Your task to perform on an android device: Open the calendar app, open the side menu, and click the "Day" option Image 0: 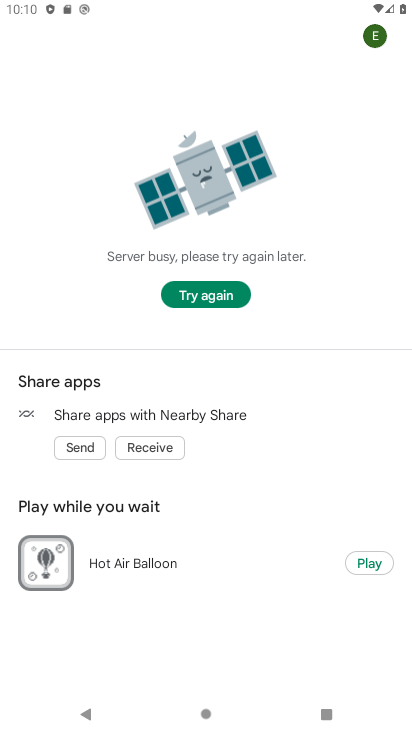
Step 0: press home button
Your task to perform on an android device: Open the calendar app, open the side menu, and click the "Day" option Image 1: 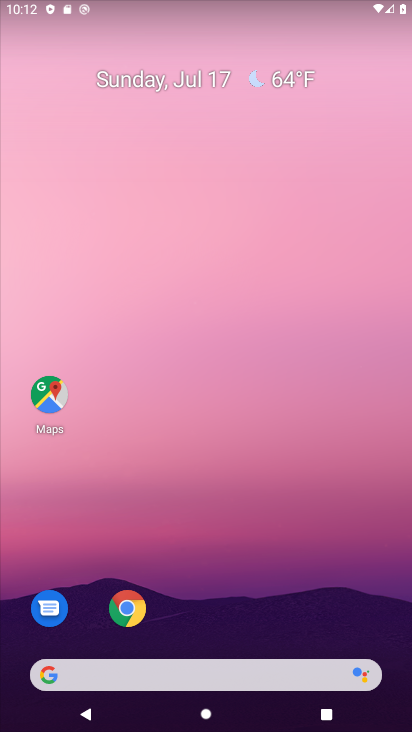
Step 1: drag from (396, 625) to (343, 204)
Your task to perform on an android device: Open the calendar app, open the side menu, and click the "Day" option Image 2: 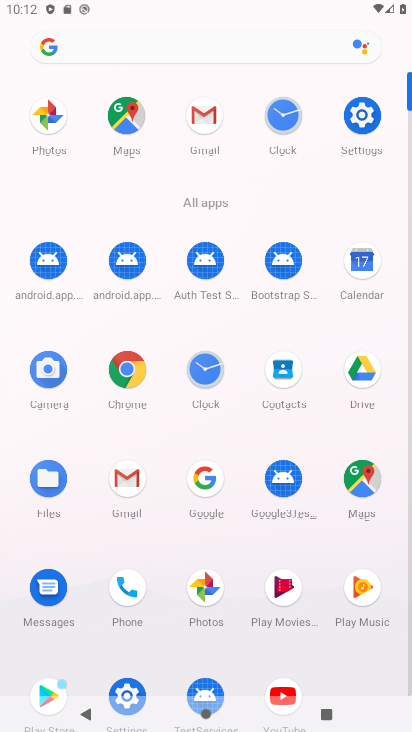
Step 2: click (365, 257)
Your task to perform on an android device: Open the calendar app, open the side menu, and click the "Day" option Image 3: 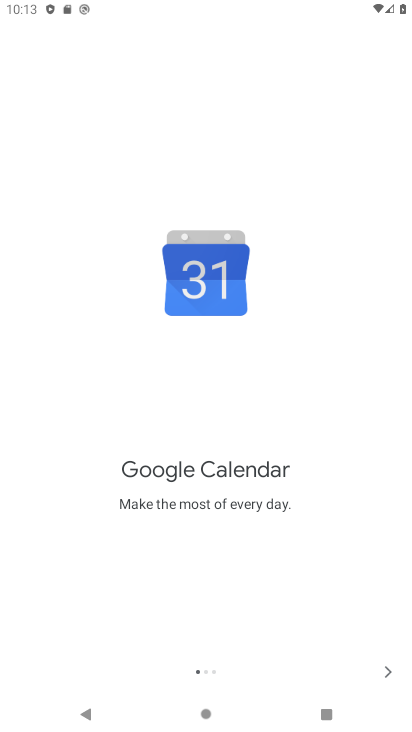
Step 3: click (387, 669)
Your task to perform on an android device: Open the calendar app, open the side menu, and click the "Day" option Image 4: 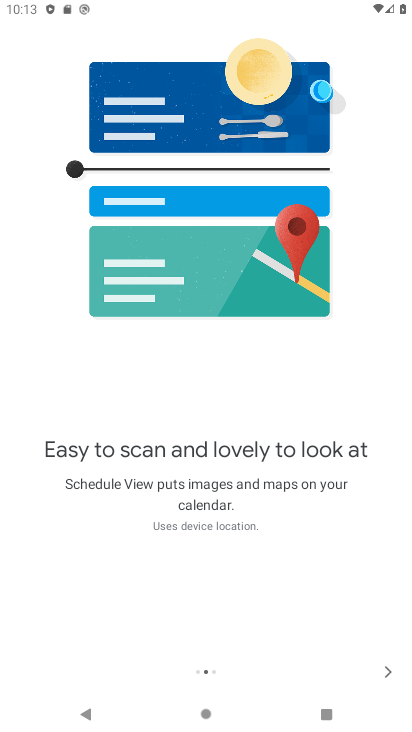
Step 4: click (387, 669)
Your task to perform on an android device: Open the calendar app, open the side menu, and click the "Day" option Image 5: 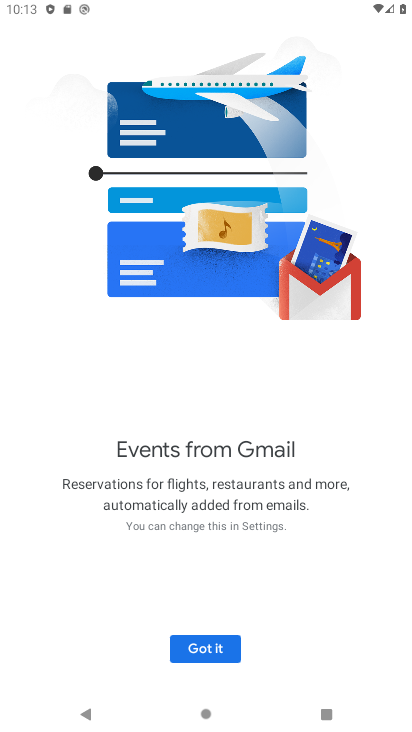
Step 5: click (226, 644)
Your task to perform on an android device: Open the calendar app, open the side menu, and click the "Day" option Image 6: 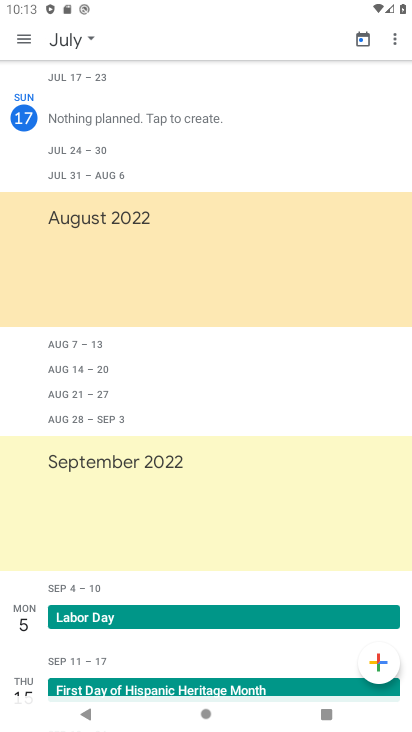
Step 6: click (21, 41)
Your task to perform on an android device: Open the calendar app, open the side menu, and click the "Day" option Image 7: 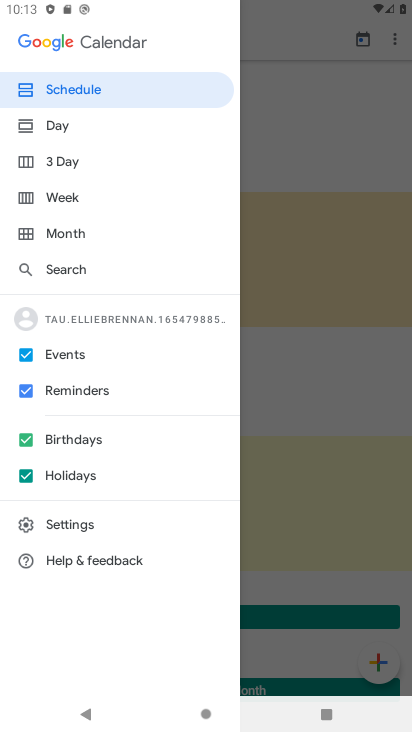
Step 7: click (45, 122)
Your task to perform on an android device: Open the calendar app, open the side menu, and click the "Day" option Image 8: 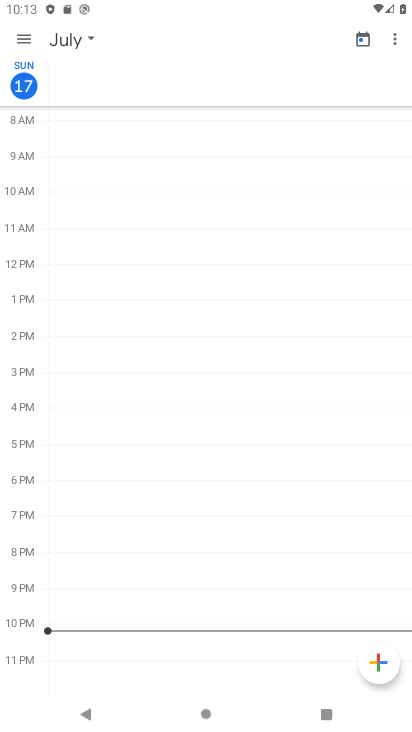
Step 8: task complete